Your task to perform on an android device: open sync settings in chrome Image 0: 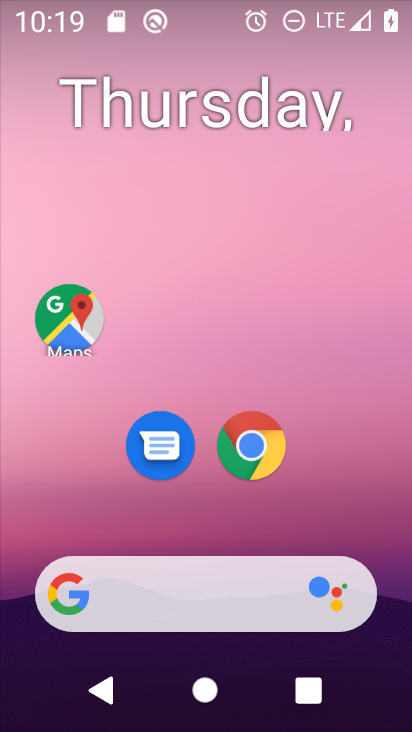
Step 0: drag from (396, 616) to (258, 41)
Your task to perform on an android device: open sync settings in chrome Image 1: 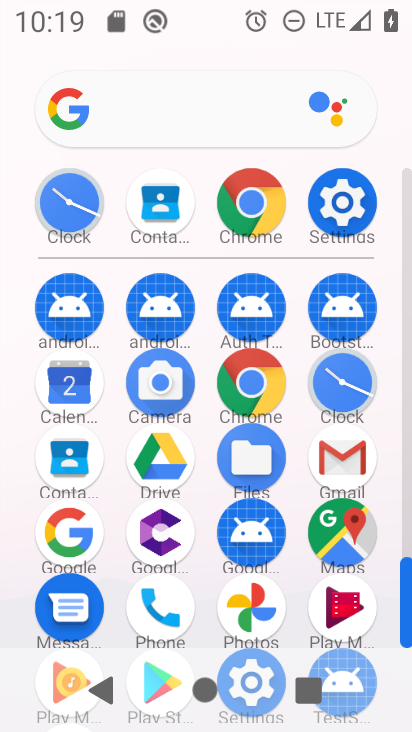
Step 1: click (252, 193)
Your task to perform on an android device: open sync settings in chrome Image 2: 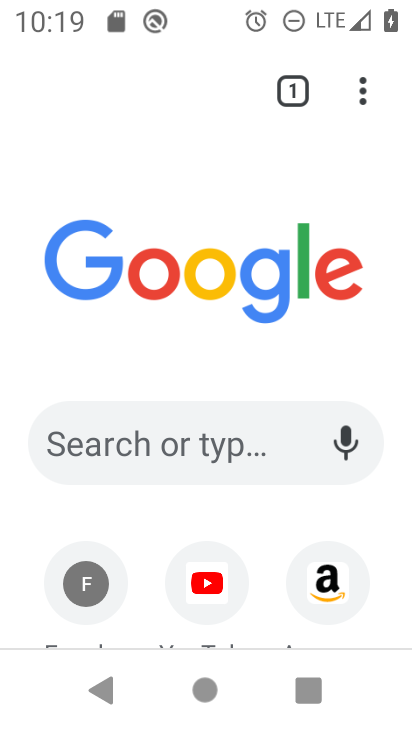
Step 2: click (366, 76)
Your task to perform on an android device: open sync settings in chrome Image 3: 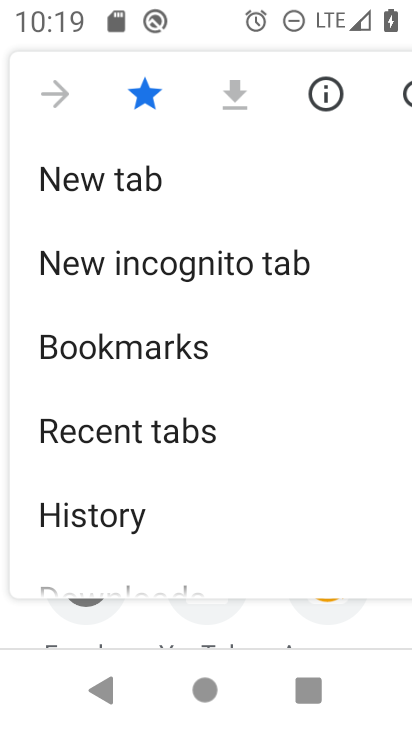
Step 3: drag from (206, 512) to (227, 29)
Your task to perform on an android device: open sync settings in chrome Image 4: 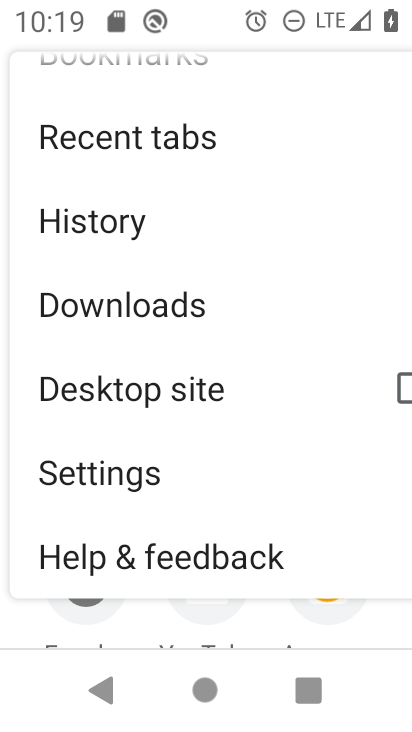
Step 4: drag from (196, 519) to (214, 117)
Your task to perform on an android device: open sync settings in chrome Image 5: 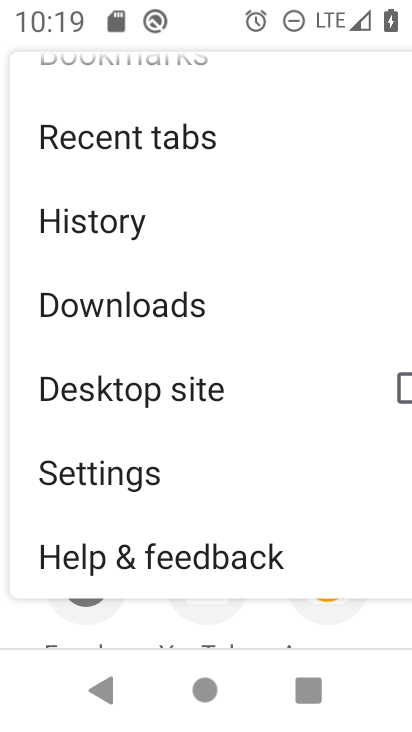
Step 5: click (207, 466)
Your task to perform on an android device: open sync settings in chrome Image 6: 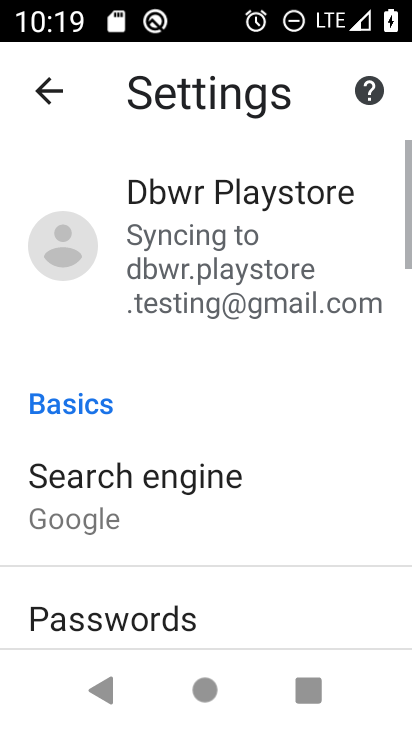
Step 6: drag from (233, 602) to (198, 136)
Your task to perform on an android device: open sync settings in chrome Image 7: 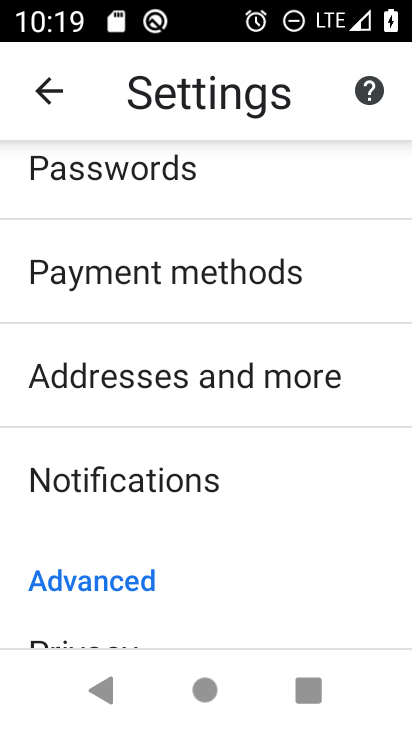
Step 7: drag from (227, 613) to (196, 183)
Your task to perform on an android device: open sync settings in chrome Image 8: 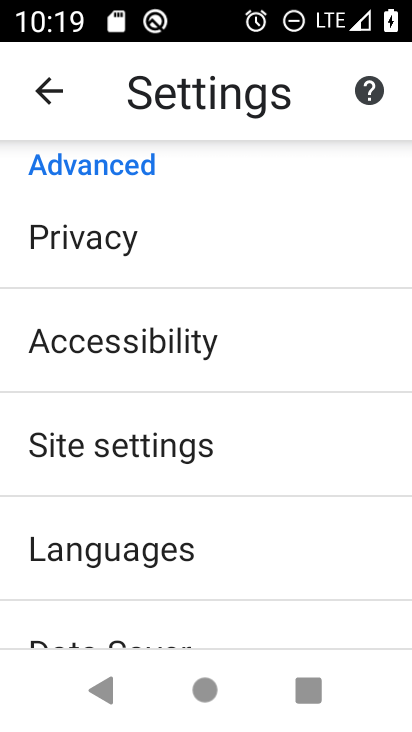
Step 8: click (216, 431)
Your task to perform on an android device: open sync settings in chrome Image 9: 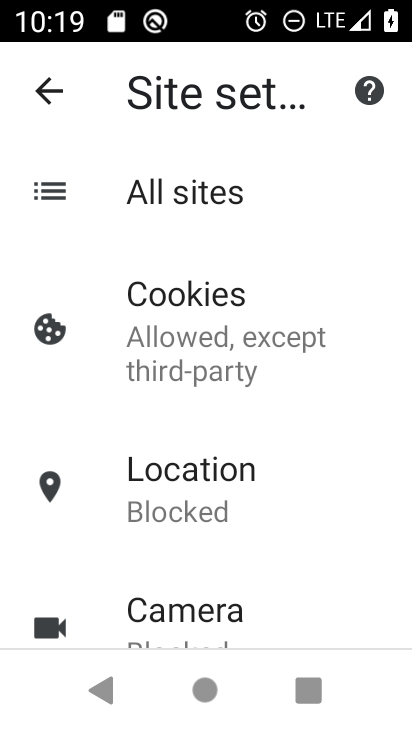
Step 9: drag from (210, 607) to (189, 40)
Your task to perform on an android device: open sync settings in chrome Image 10: 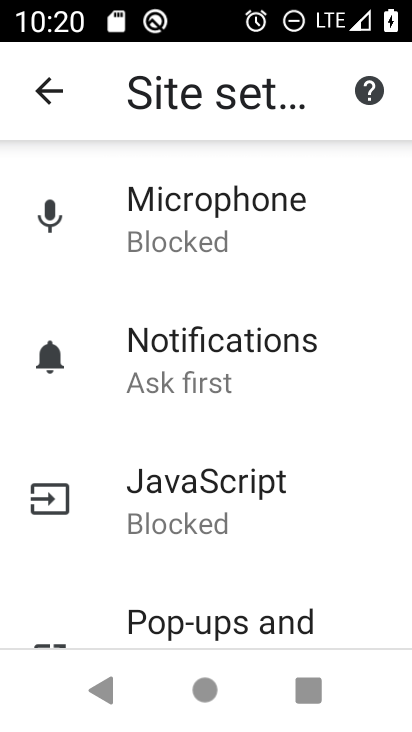
Step 10: drag from (173, 603) to (185, 179)
Your task to perform on an android device: open sync settings in chrome Image 11: 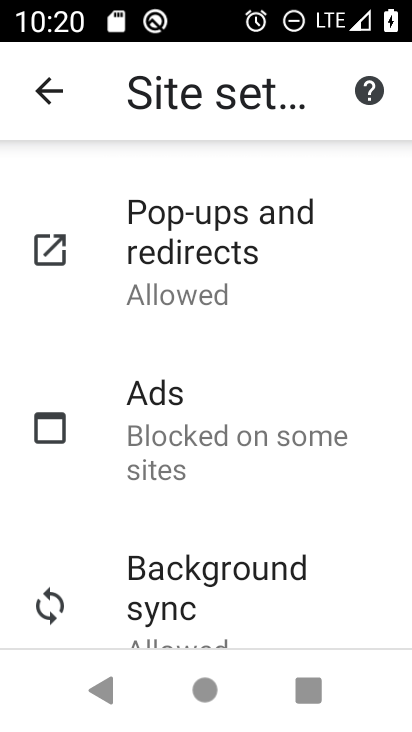
Step 11: click (196, 582)
Your task to perform on an android device: open sync settings in chrome Image 12: 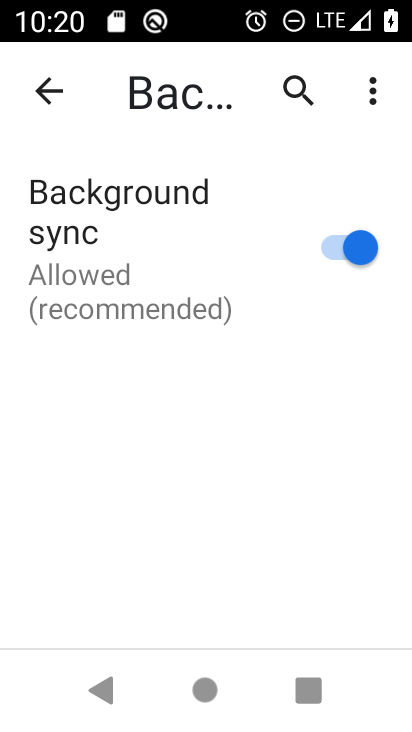
Step 12: task complete